Your task to perform on an android device: Open calendar and show me the fourth week of next month Image 0: 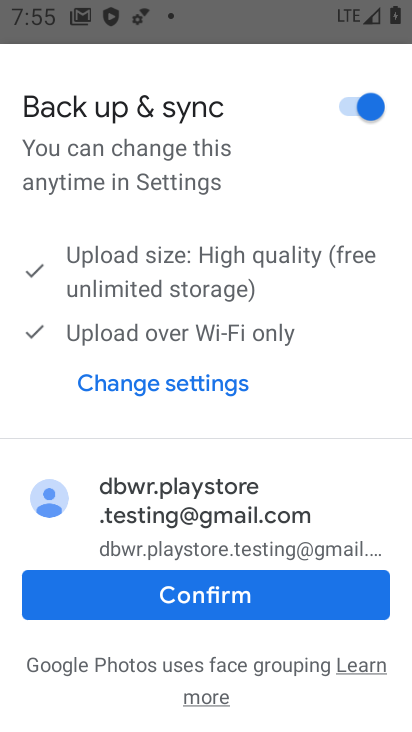
Step 0: press home button
Your task to perform on an android device: Open calendar and show me the fourth week of next month Image 1: 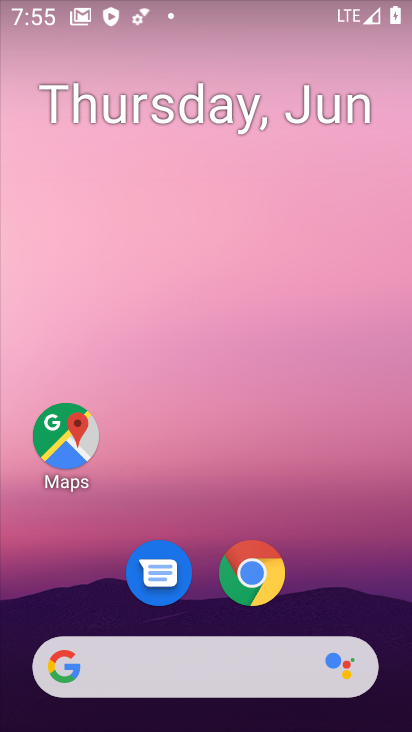
Step 1: drag from (333, 552) to (320, 235)
Your task to perform on an android device: Open calendar and show me the fourth week of next month Image 2: 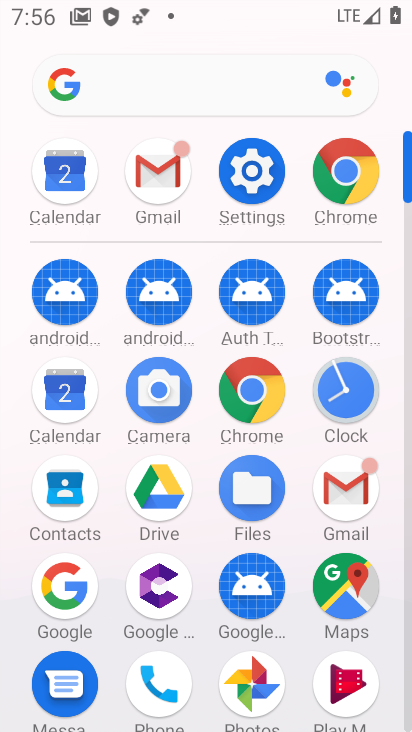
Step 2: click (73, 394)
Your task to perform on an android device: Open calendar and show me the fourth week of next month Image 3: 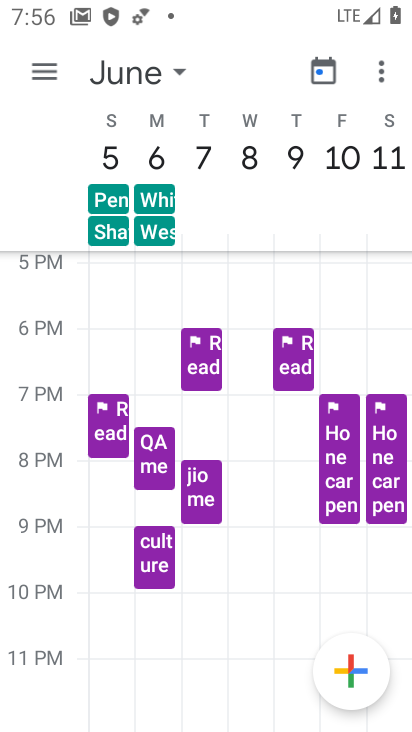
Step 3: click (47, 70)
Your task to perform on an android device: Open calendar and show me the fourth week of next month Image 4: 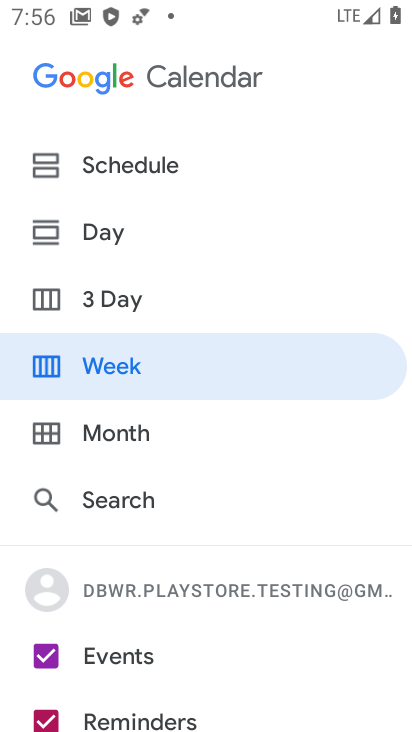
Step 4: click (149, 442)
Your task to perform on an android device: Open calendar and show me the fourth week of next month Image 5: 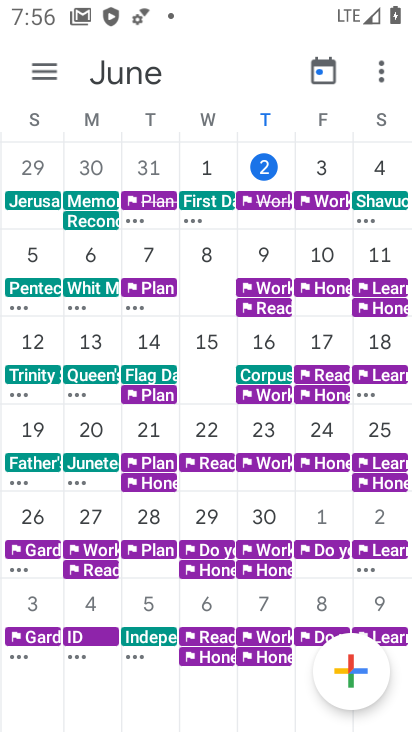
Step 5: task complete